Your task to perform on an android device: turn off data saver in the chrome app Image 0: 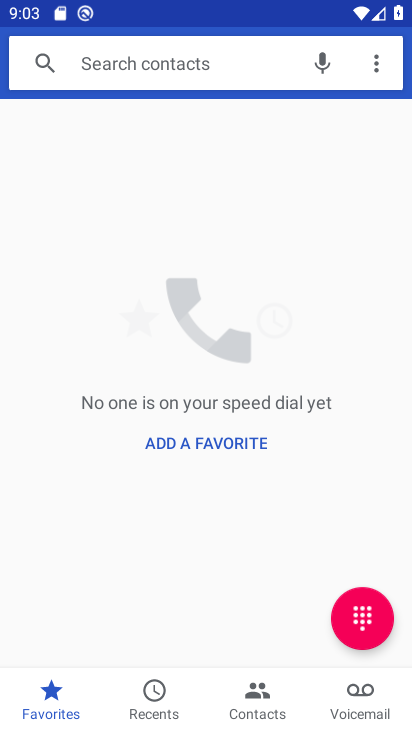
Step 0: press home button
Your task to perform on an android device: turn off data saver in the chrome app Image 1: 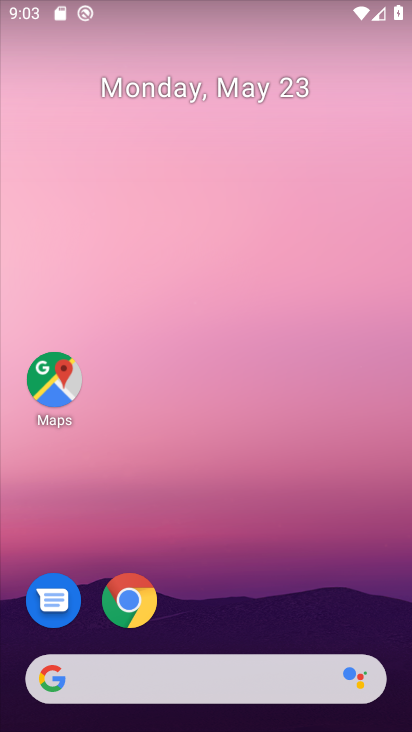
Step 1: click (130, 602)
Your task to perform on an android device: turn off data saver in the chrome app Image 2: 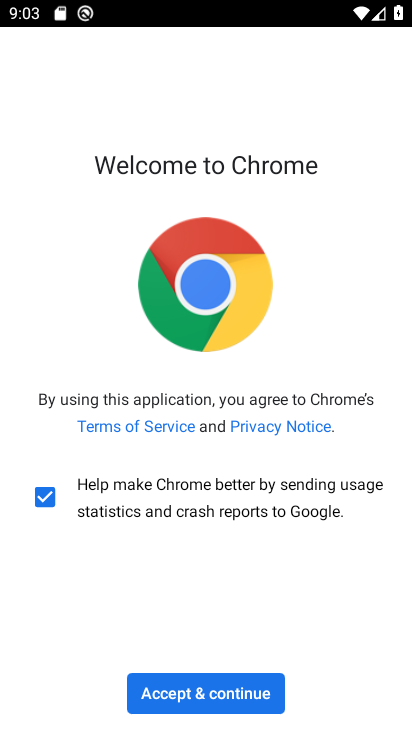
Step 2: click (239, 695)
Your task to perform on an android device: turn off data saver in the chrome app Image 3: 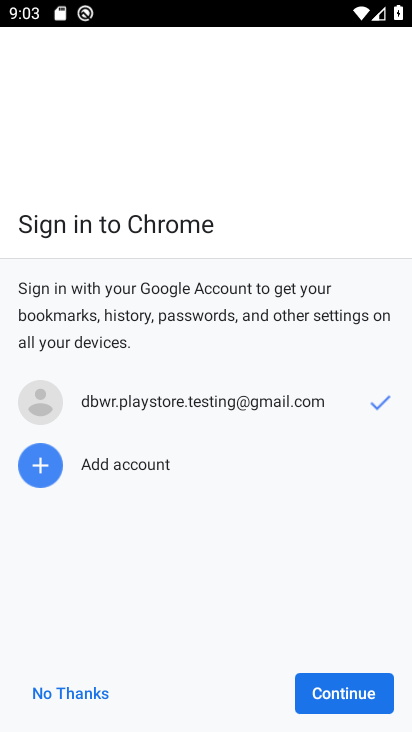
Step 3: click (359, 695)
Your task to perform on an android device: turn off data saver in the chrome app Image 4: 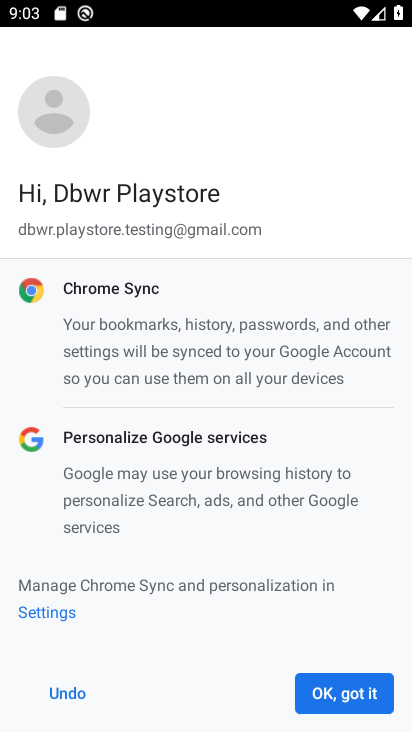
Step 4: click (329, 698)
Your task to perform on an android device: turn off data saver in the chrome app Image 5: 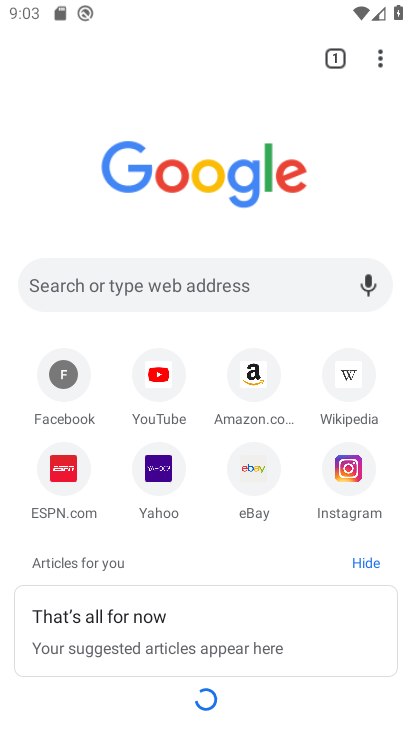
Step 5: click (379, 64)
Your task to perform on an android device: turn off data saver in the chrome app Image 6: 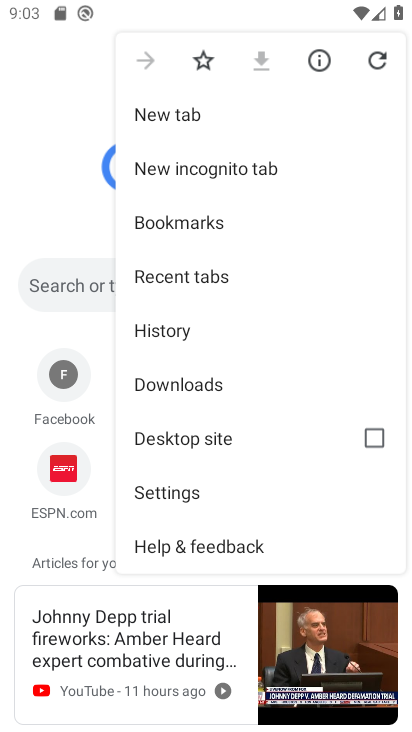
Step 6: click (173, 491)
Your task to perform on an android device: turn off data saver in the chrome app Image 7: 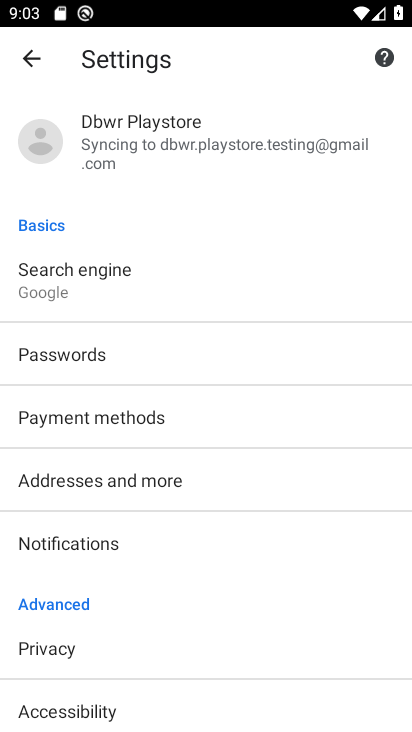
Step 7: drag from (101, 683) to (126, 311)
Your task to perform on an android device: turn off data saver in the chrome app Image 8: 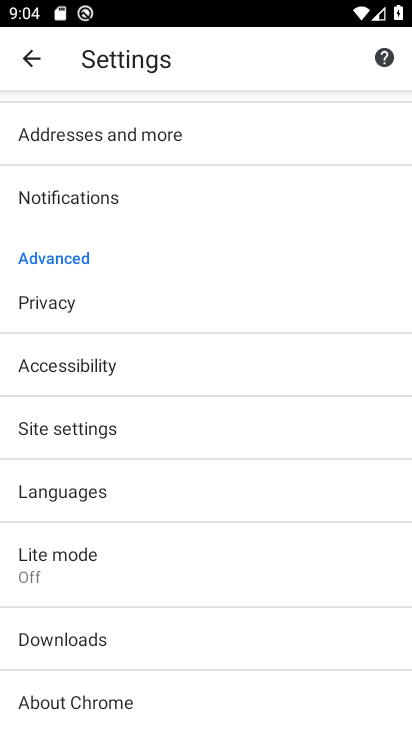
Step 8: click (82, 559)
Your task to perform on an android device: turn off data saver in the chrome app Image 9: 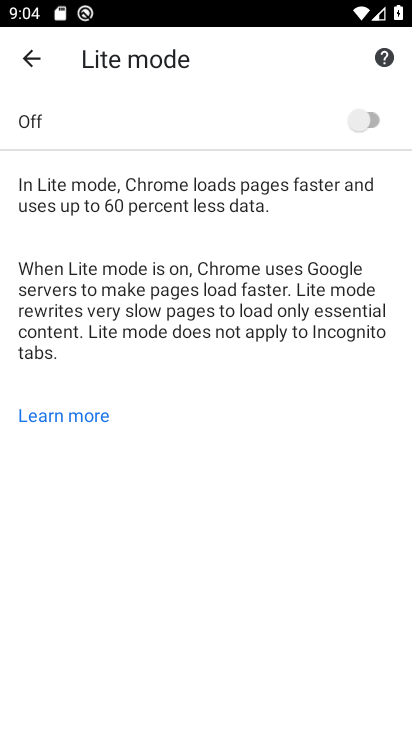
Step 9: task complete